Your task to perform on an android device: toggle javascript in the chrome app Image 0: 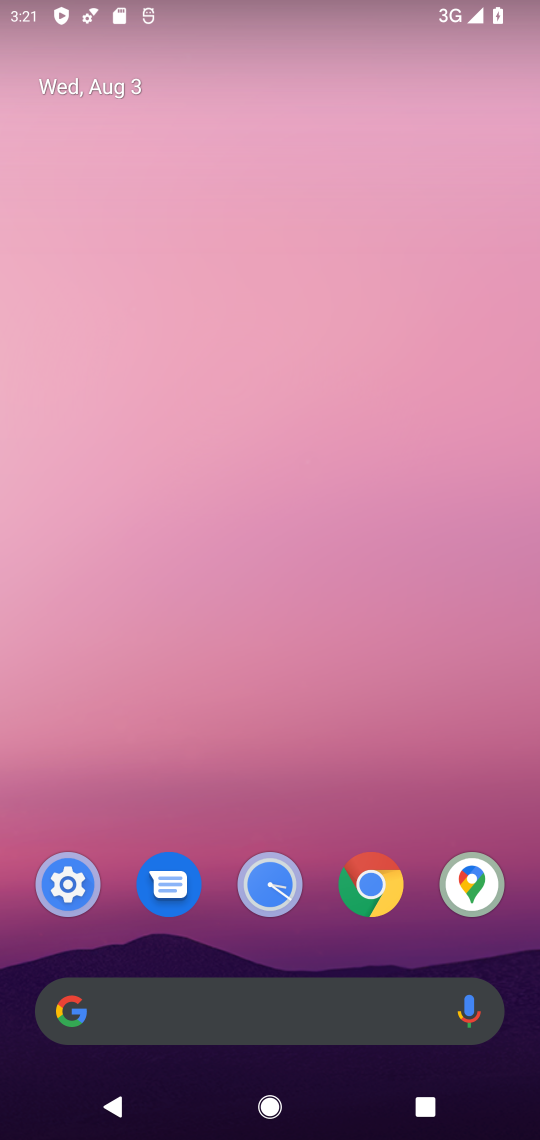
Step 0: click (359, 897)
Your task to perform on an android device: toggle javascript in the chrome app Image 1: 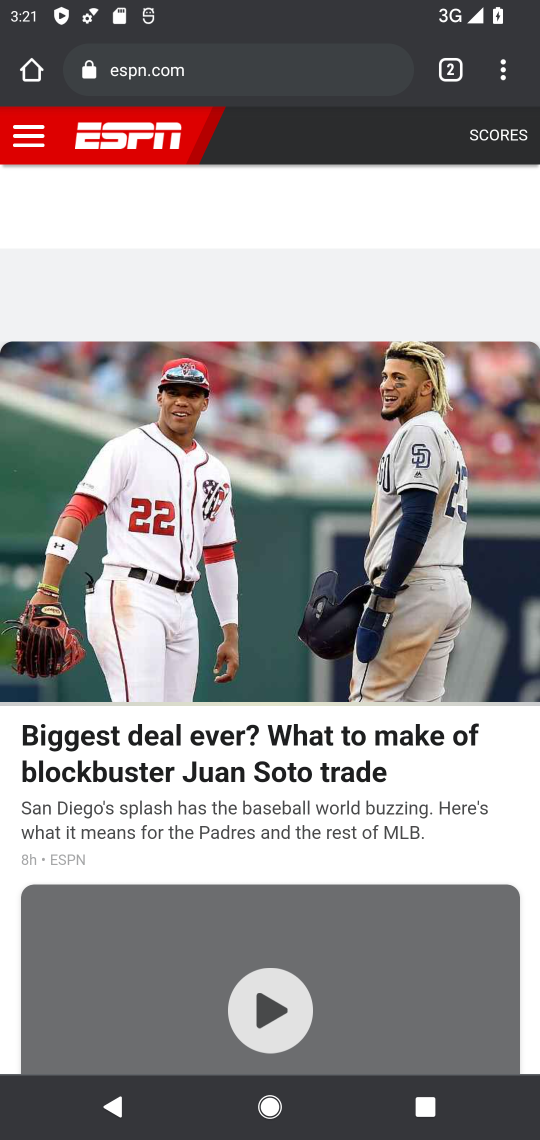
Step 1: click (492, 86)
Your task to perform on an android device: toggle javascript in the chrome app Image 2: 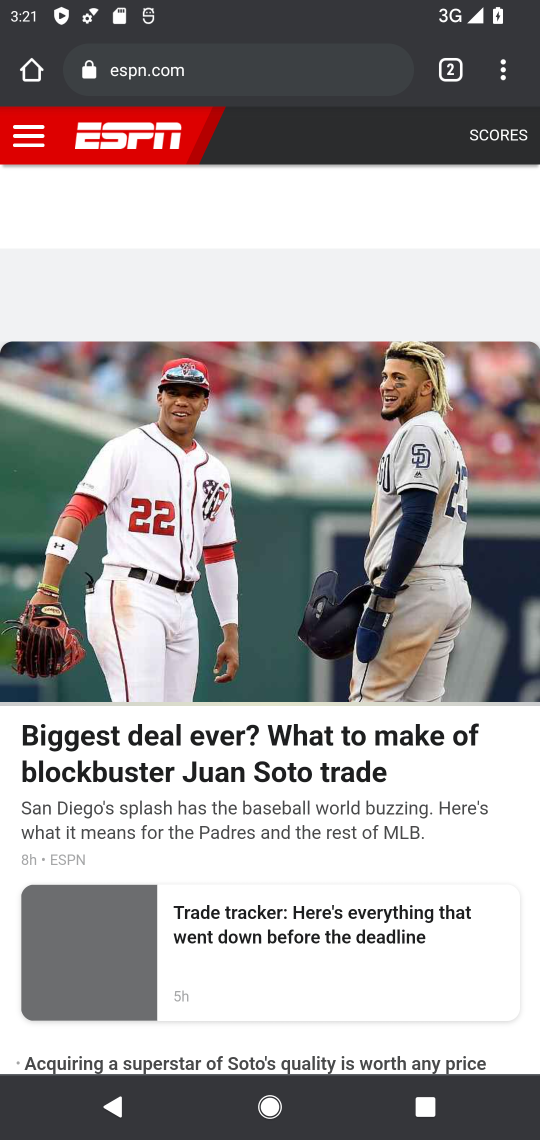
Step 2: task complete